Your task to perform on an android device: See recent photos Image 0: 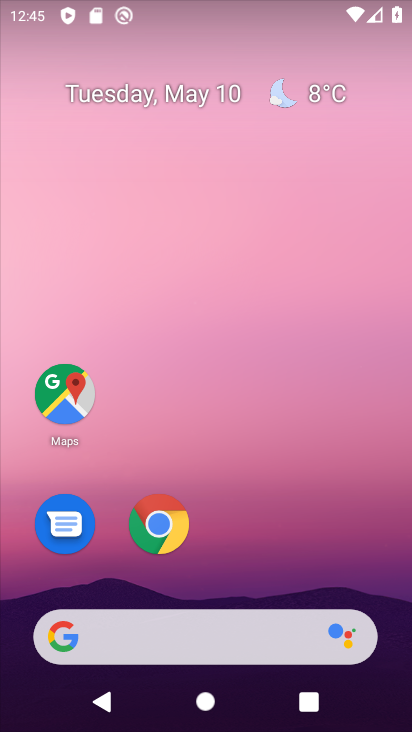
Step 0: drag from (275, 497) to (323, 28)
Your task to perform on an android device: See recent photos Image 1: 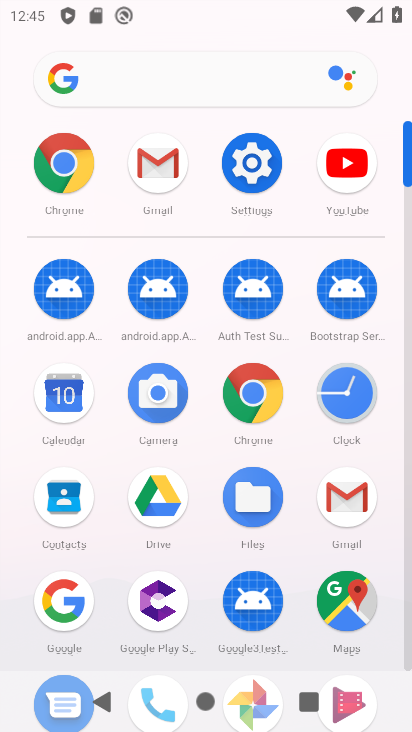
Step 1: drag from (296, 399) to (304, 229)
Your task to perform on an android device: See recent photos Image 2: 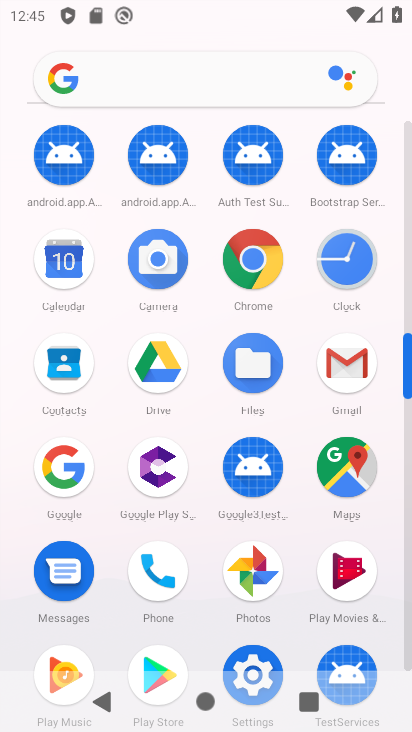
Step 2: click (251, 551)
Your task to perform on an android device: See recent photos Image 3: 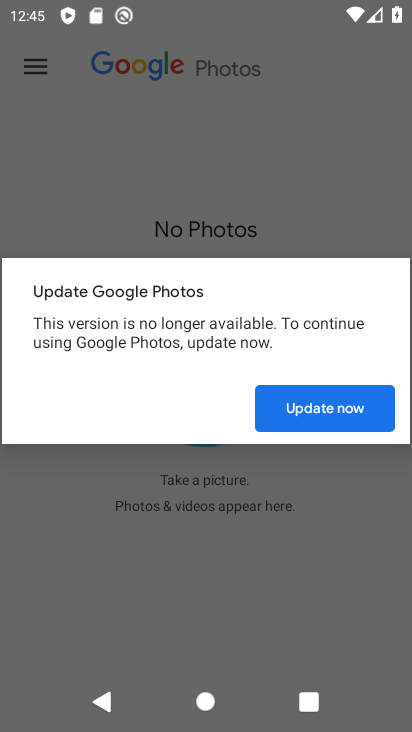
Step 3: click (340, 405)
Your task to perform on an android device: See recent photos Image 4: 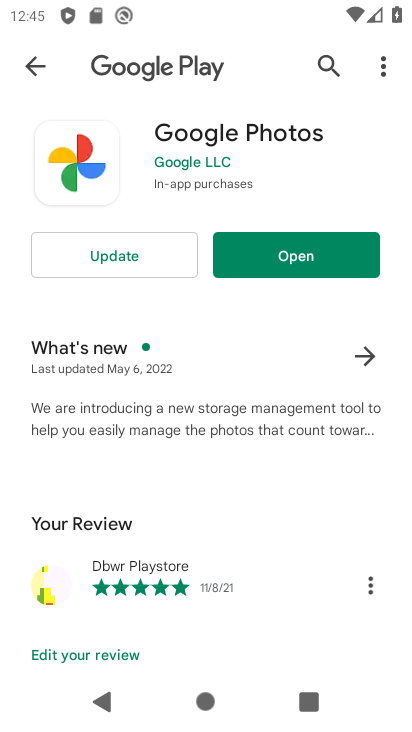
Step 4: click (339, 264)
Your task to perform on an android device: See recent photos Image 5: 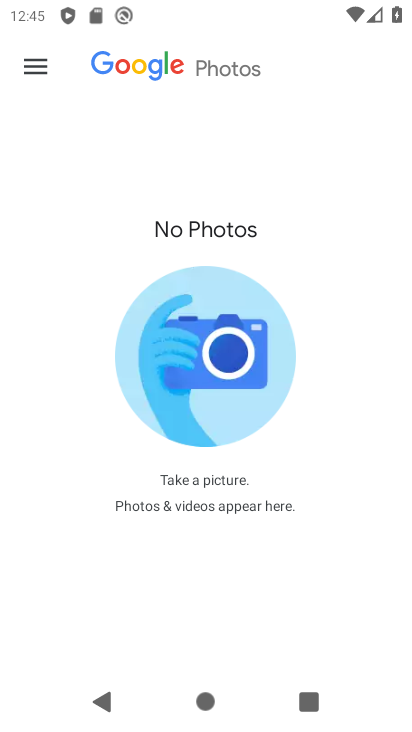
Step 5: click (32, 65)
Your task to perform on an android device: See recent photos Image 6: 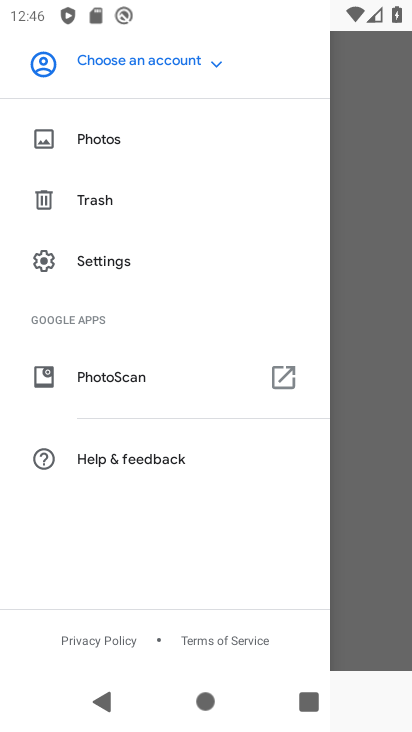
Step 6: click (80, 128)
Your task to perform on an android device: See recent photos Image 7: 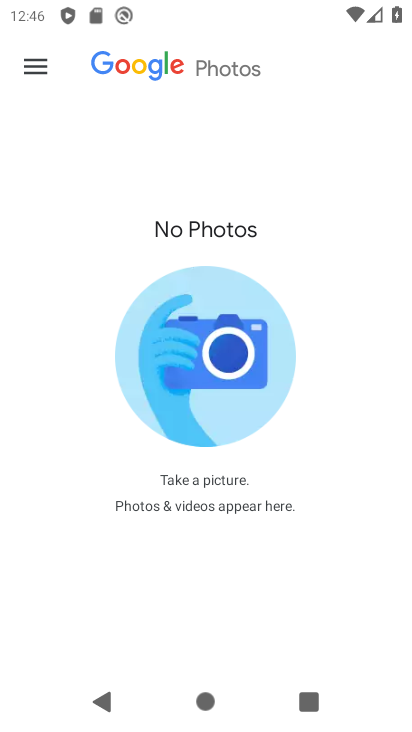
Step 7: task complete